Your task to perform on an android device: turn off airplane mode Image 0: 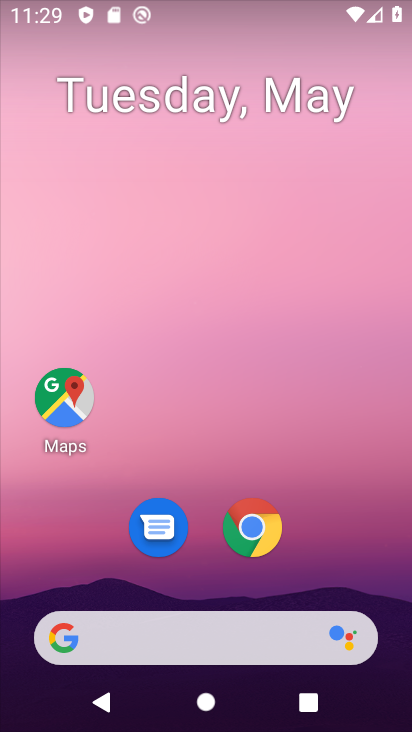
Step 0: drag from (342, 546) to (251, 46)
Your task to perform on an android device: turn off airplane mode Image 1: 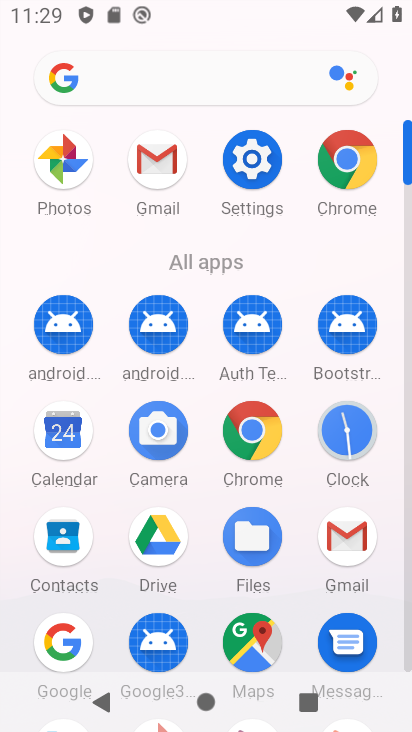
Step 1: click (250, 159)
Your task to perform on an android device: turn off airplane mode Image 2: 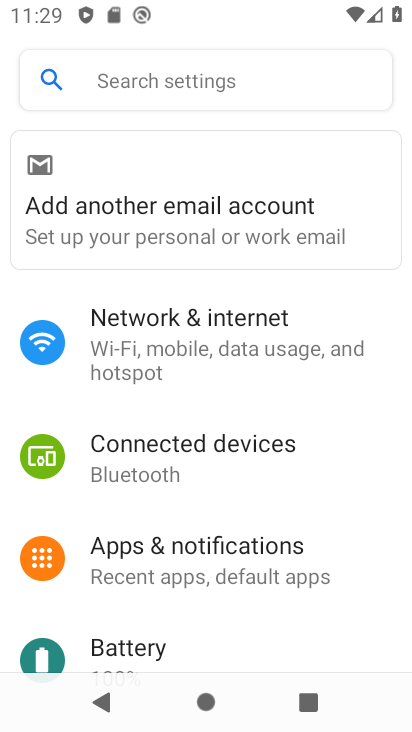
Step 2: click (137, 316)
Your task to perform on an android device: turn off airplane mode Image 3: 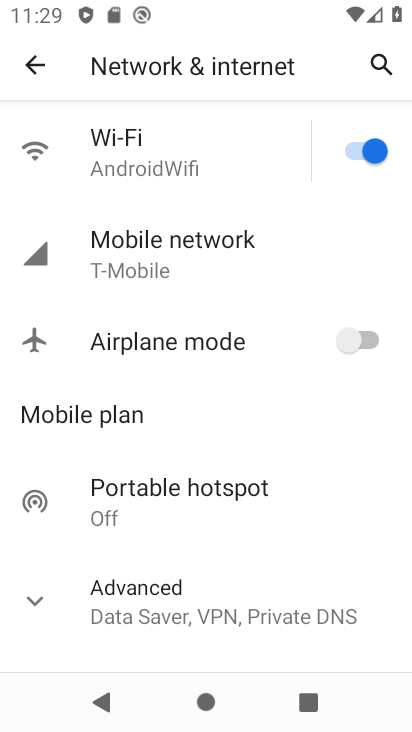
Step 3: task complete